Your task to perform on an android device: Open privacy settings Image 0: 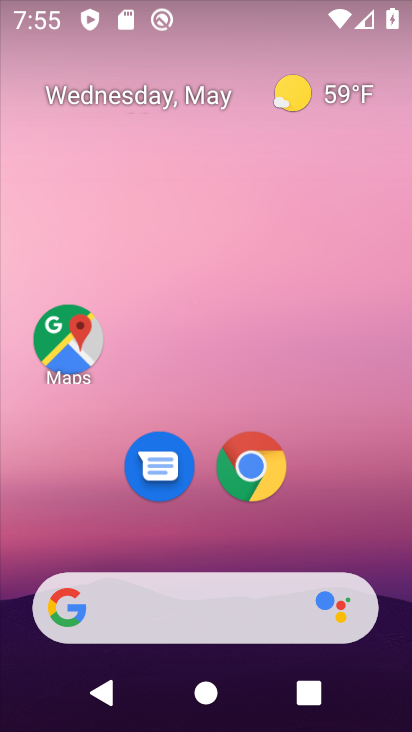
Step 0: drag from (334, 477) to (351, 195)
Your task to perform on an android device: Open privacy settings Image 1: 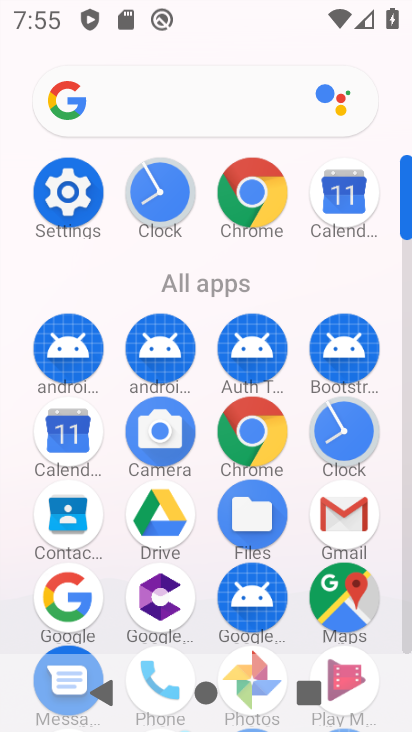
Step 1: click (58, 188)
Your task to perform on an android device: Open privacy settings Image 2: 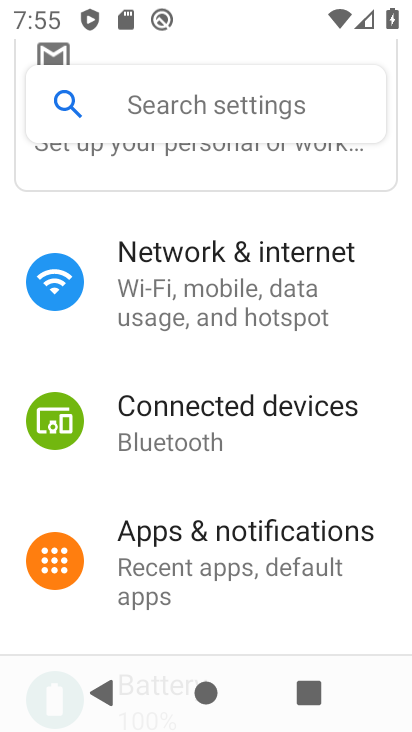
Step 2: drag from (278, 551) to (318, 210)
Your task to perform on an android device: Open privacy settings Image 3: 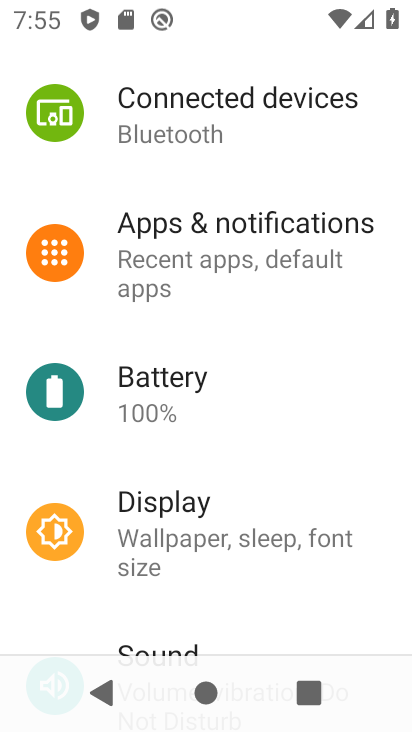
Step 3: drag from (246, 557) to (264, 151)
Your task to perform on an android device: Open privacy settings Image 4: 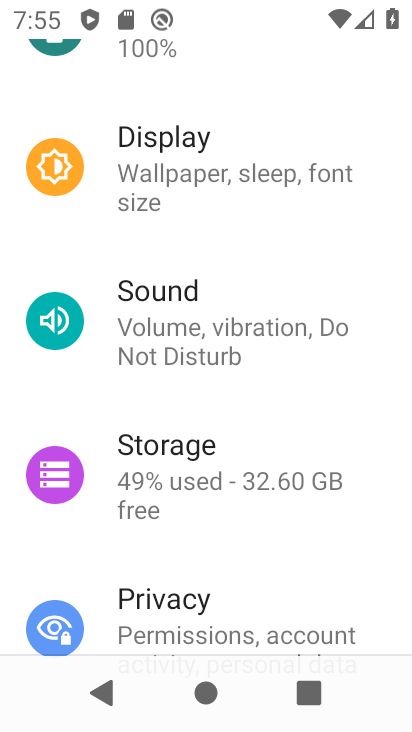
Step 4: click (176, 602)
Your task to perform on an android device: Open privacy settings Image 5: 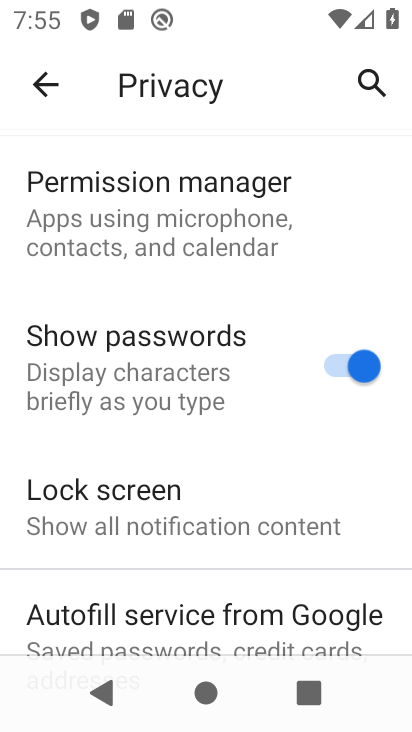
Step 5: task complete